Your task to perform on an android device: Set the phone to "Do not disturb". Image 0: 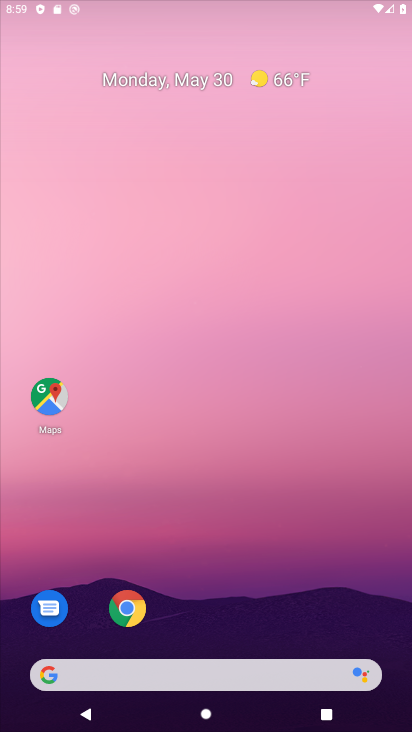
Step 0: drag from (228, 723) to (215, 245)
Your task to perform on an android device: Set the phone to "Do not disturb". Image 1: 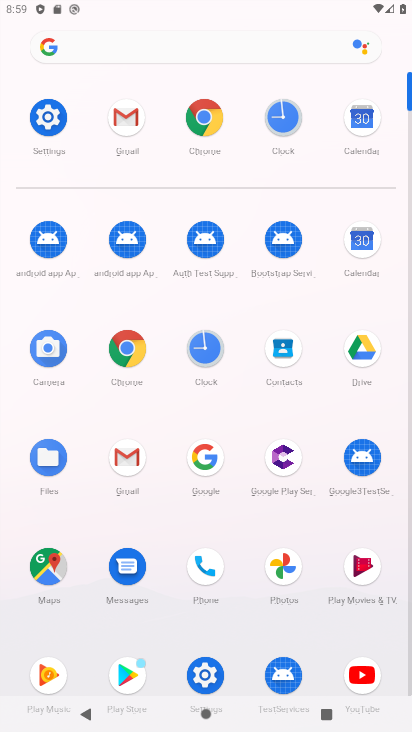
Step 1: click (53, 115)
Your task to perform on an android device: Set the phone to "Do not disturb". Image 2: 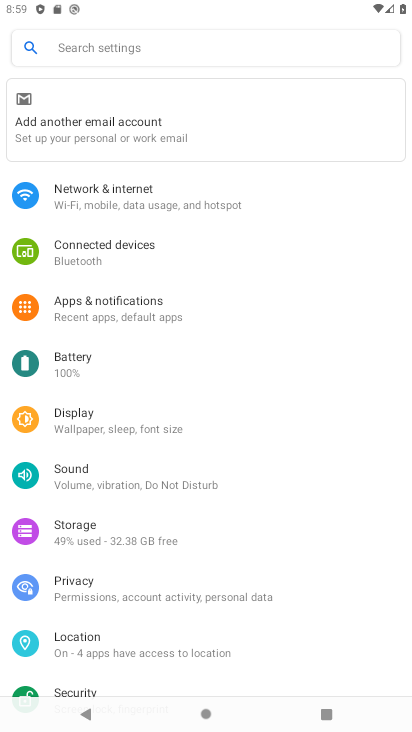
Step 2: drag from (142, 641) to (135, 414)
Your task to perform on an android device: Set the phone to "Do not disturb". Image 3: 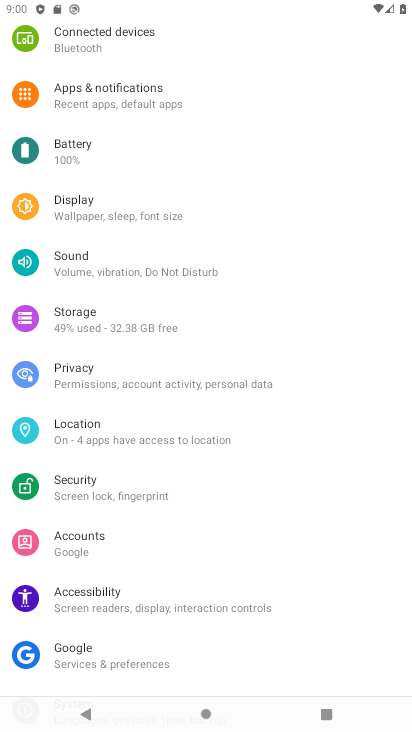
Step 3: click (180, 270)
Your task to perform on an android device: Set the phone to "Do not disturb". Image 4: 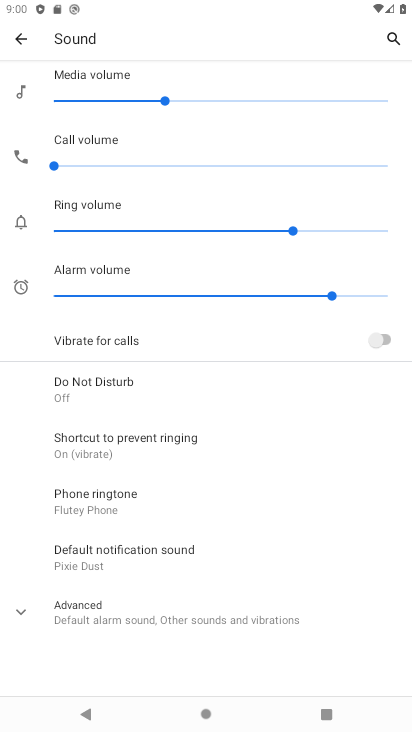
Step 4: click (75, 378)
Your task to perform on an android device: Set the phone to "Do not disturb". Image 5: 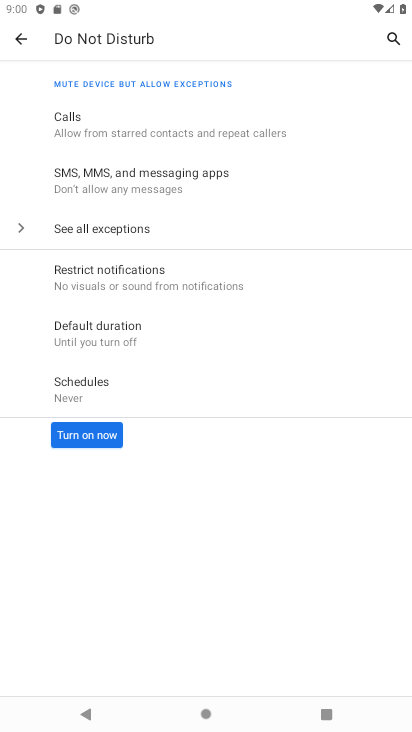
Step 5: click (79, 434)
Your task to perform on an android device: Set the phone to "Do not disturb". Image 6: 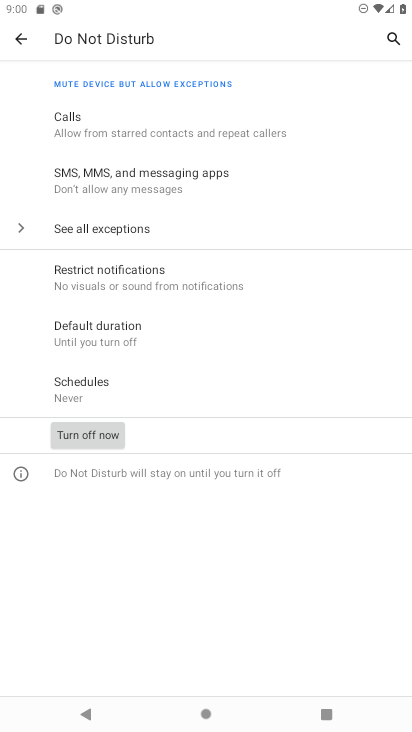
Step 6: task complete